Your task to perform on an android device: change timer sound Image 0: 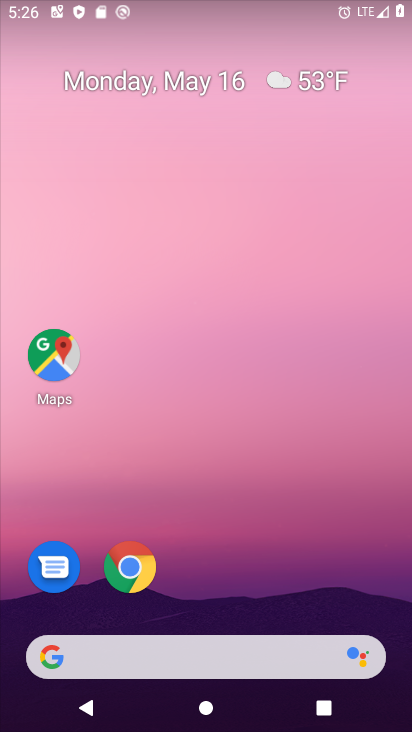
Step 0: drag from (332, 627) to (345, 4)
Your task to perform on an android device: change timer sound Image 1: 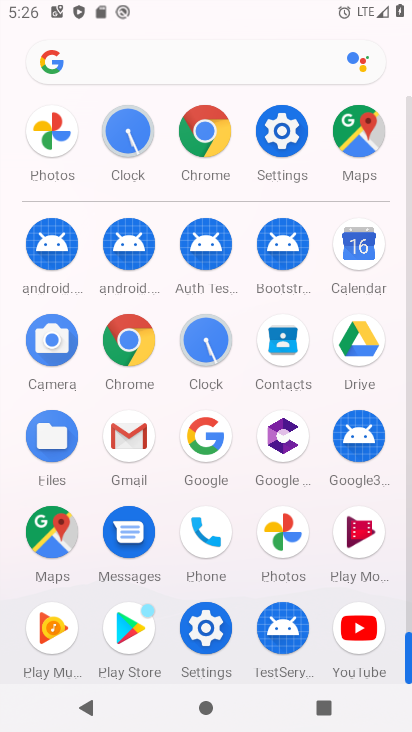
Step 1: click (199, 338)
Your task to perform on an android device: change timer sound Image 2: 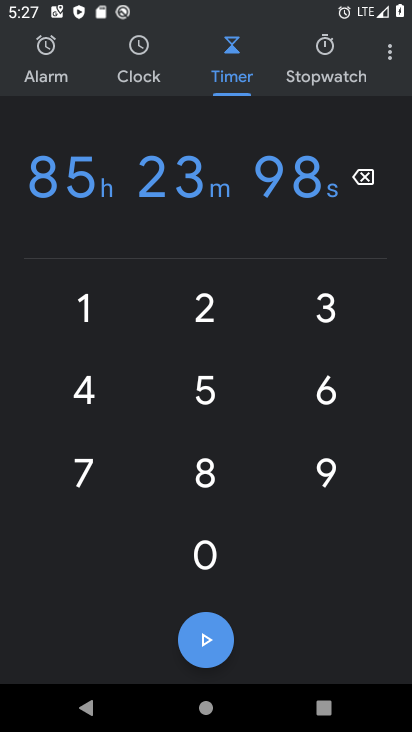
Step 2: click (386, 39)
Your task to perform on an android device: change timer sound Image 3: 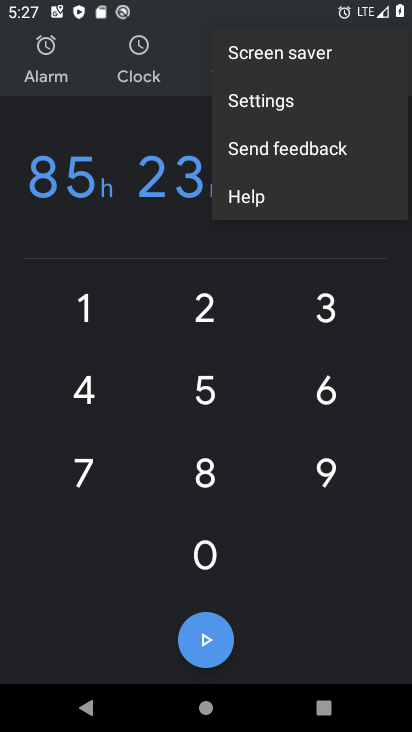
Step 3: click (309, 100)
Your task to perform on an android device: change timer sound Image 4: 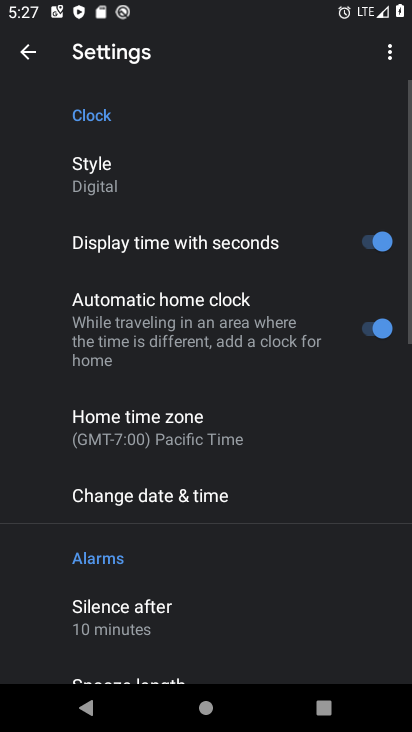
Step 4: drag from (320, 544) to (314, 43)
Your task to perform on an android device: change timer sound Image 5: 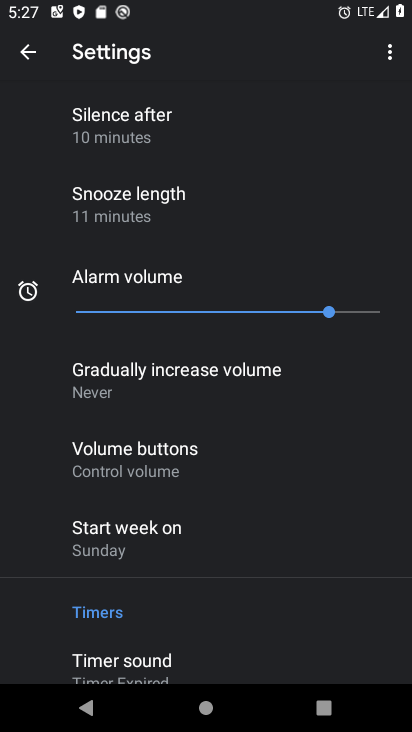
Step 5: drag from (315, 625) to (307, 214)
Your task to perform on an android device: change timer sound Image 6: 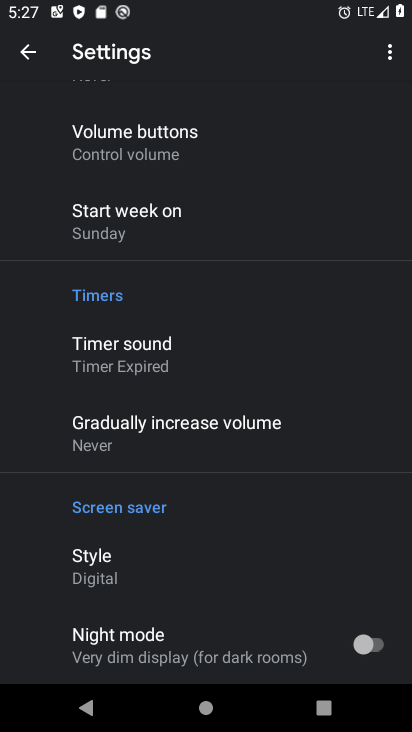
Step 6: click (132, 360)
Your task to perform on an android device: change timer sound Image 7: 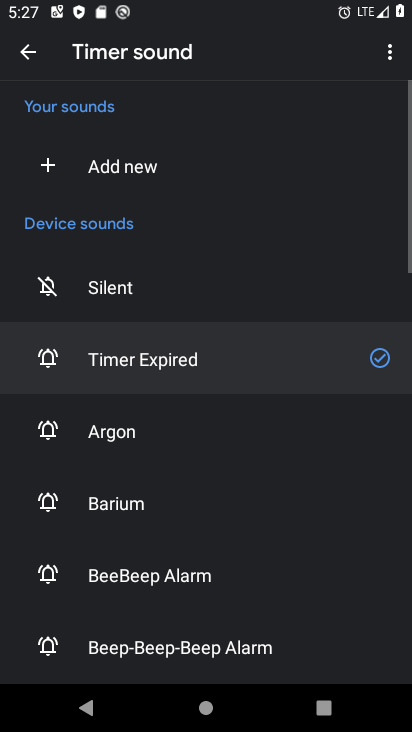
Step 7: click (138, 428)
Your task to perform on an android device: change timer sound Image 8: 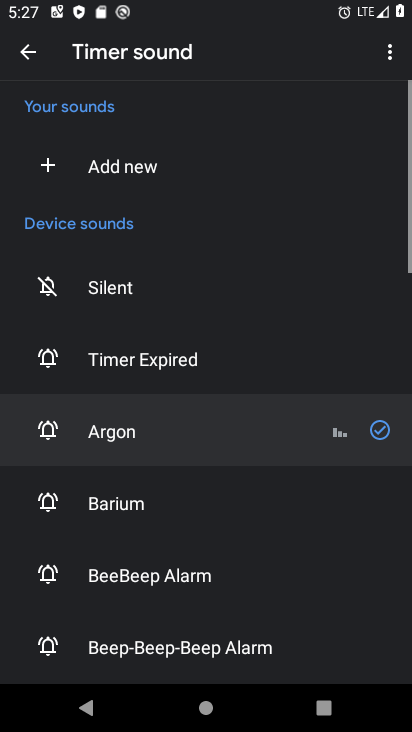
Step 8: task complete